Your task to perform on an android device: Search for pizza restaurants on Maps Image 0: 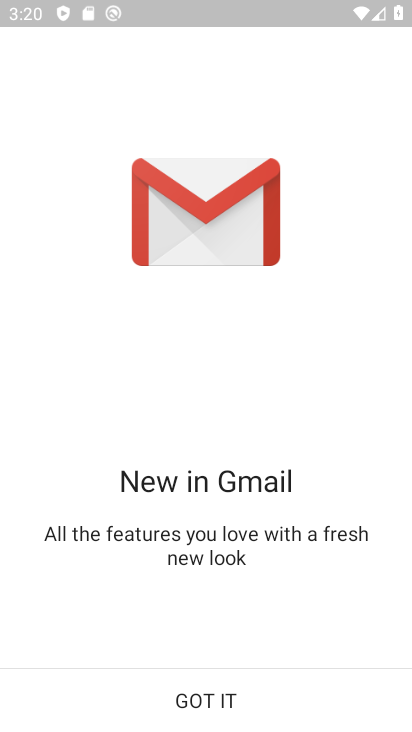
Step 0: press home button
Your task to perform on an android device: Search for pizza restaurants on Maps Image 1: 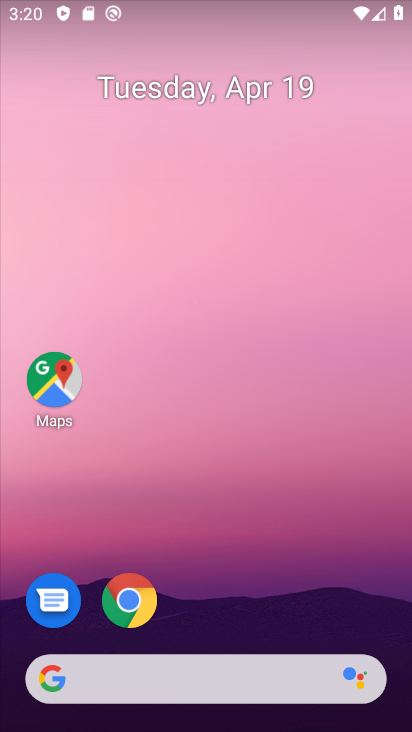
Step 1: click (59, 358)
Your task to perform on an android device: Search for pizza restaurants on Maps Image 2: 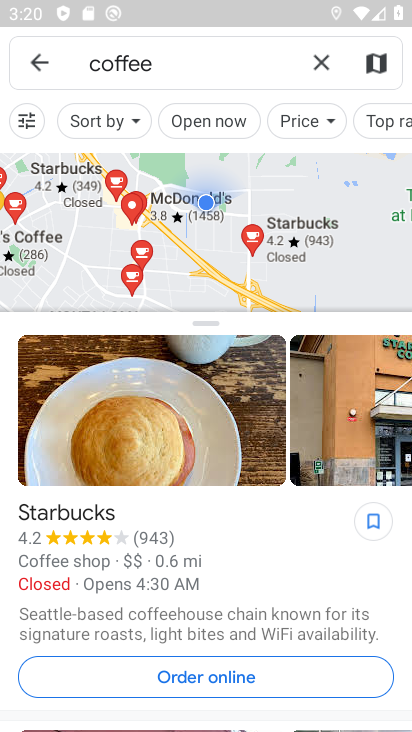
Step 2: click (316, 60)
Your task to perform on an android device: Search for pizza restaurants on Maps Image 3: 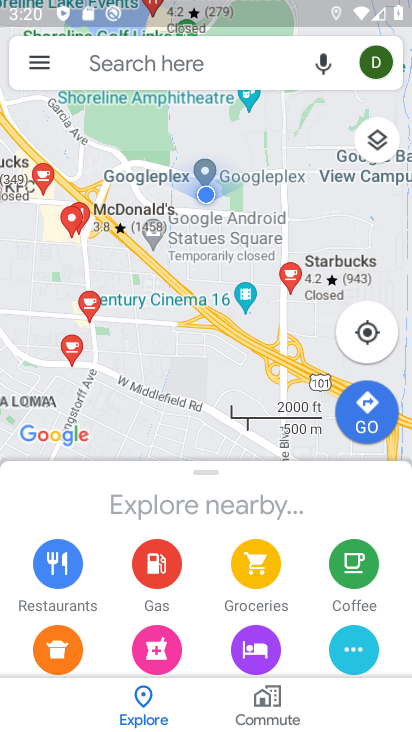
Step 3: click (144, 62)
Your task to perform on an android device: Search for pizza restaurants on Maps Image 4: 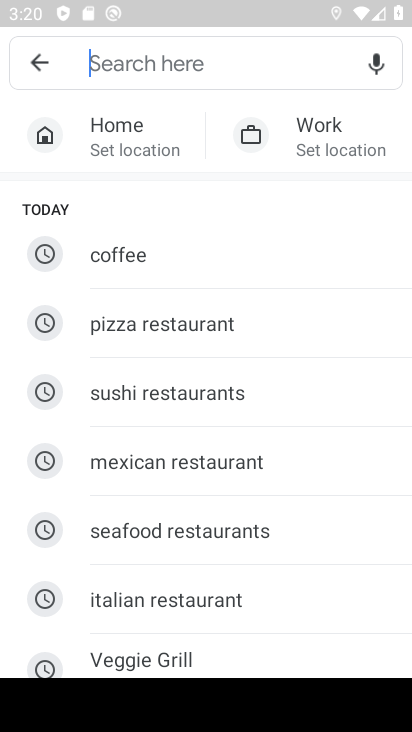
Step 4: type "pizza restaurants"
Your task to perform on an android device: Search for pizza restaurants on Maps Image 5: 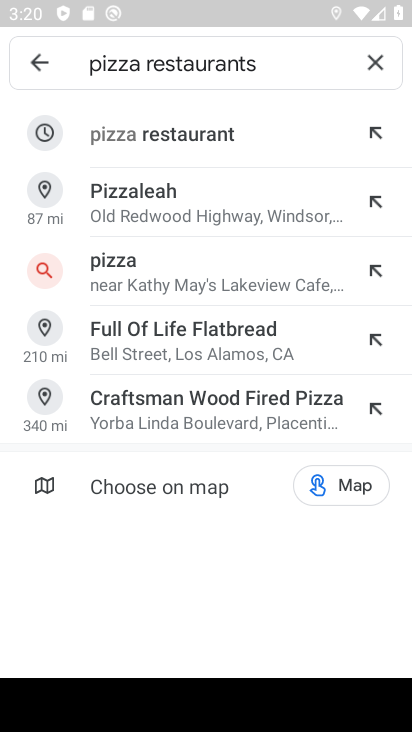
Step 5: click (177, 135)
Your task to perform on an android device: Search for pizza restaurants on Maps Image 6: 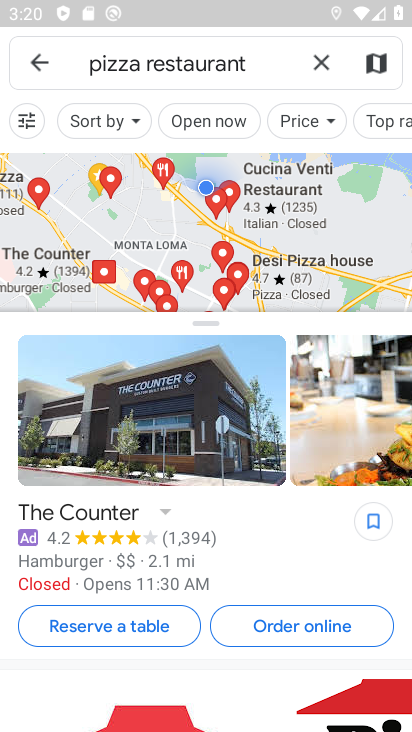
Step 6: task complete